Your task to perform on an android device: set the timer Image 0: 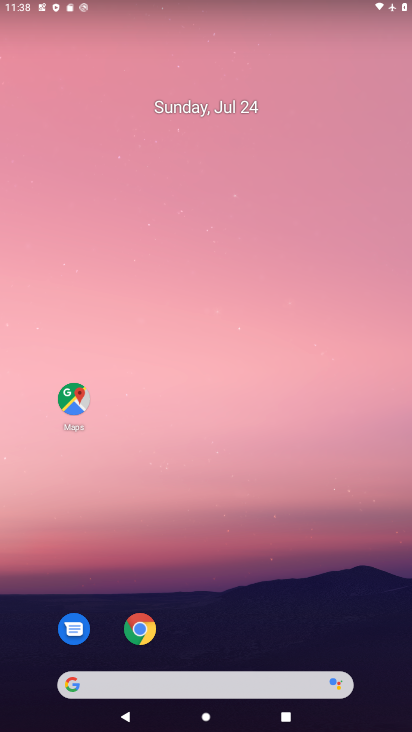
Step 0: drag from (234, 639) to (210, 191)
Your task to perform on an android device: set the timer Image 1: 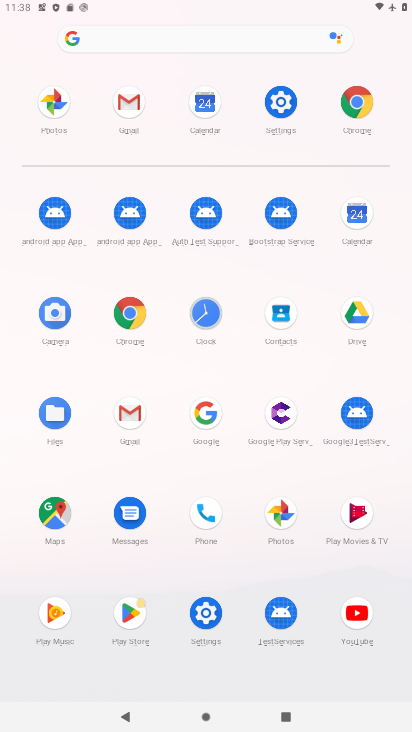
Step 1: click (203, 322)
Your task to perform on an android device: set the timer Image 2: 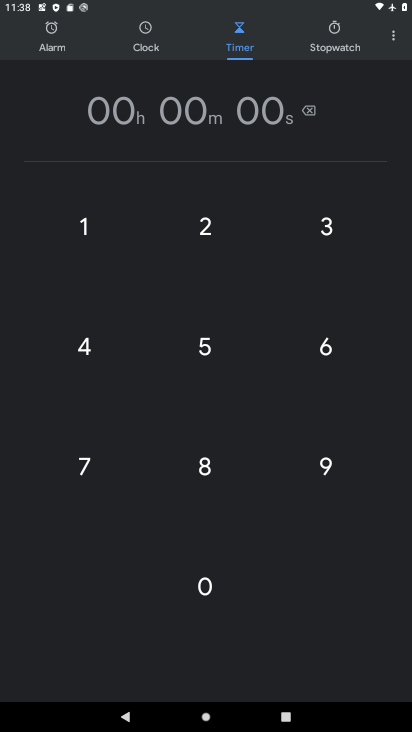
Step 2: task complete